Your task to perform on an android device: toggle sleep mode Image 0: 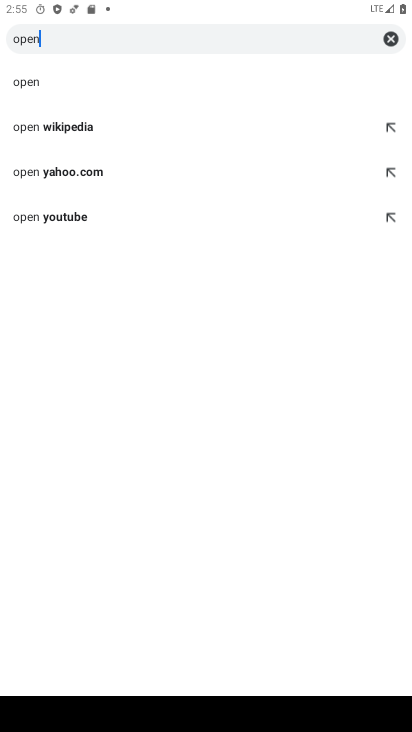
Step 0: press home button
Your task to perform on an android device: toggle sleep mode Image 1: 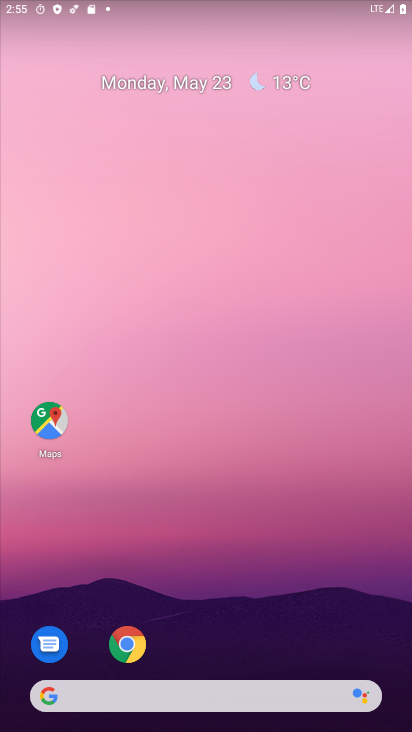
Step 1: drag from (196, 664) to (281, 101)
Your task to perform on an android device: toggle sleep mode Image 2: 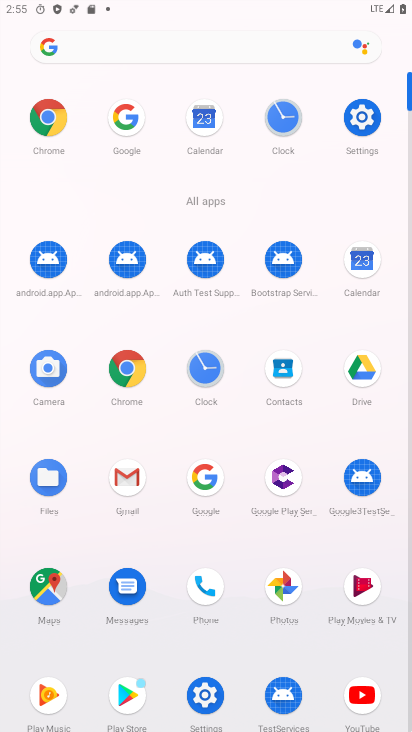
Step 2: click (360, 116)
Your task to perform on an android device: toggle sleep mode Image 3: 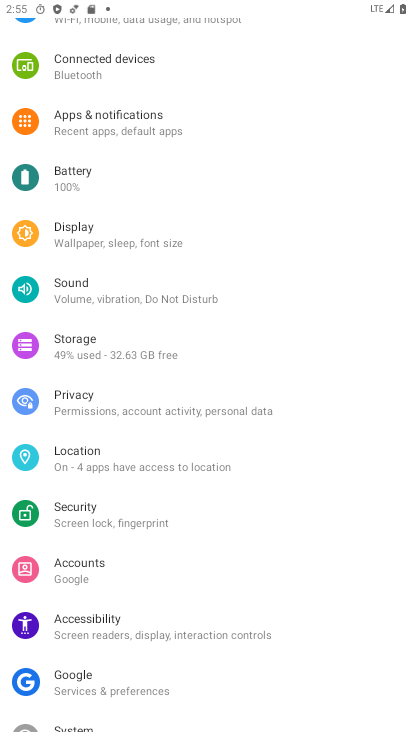
Step 3: click (122, 257)
Your task to perform on an android device: toggle sleep mode Image 4: 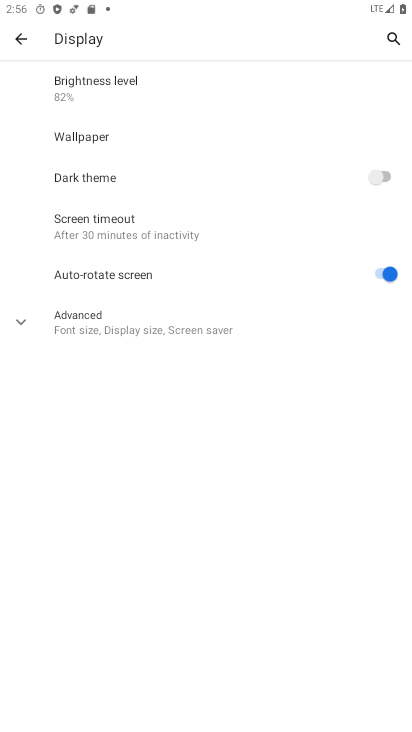
Step 4: task complete